Your task to perform on an android device: manage bookmarks in the chrome app Image 0: 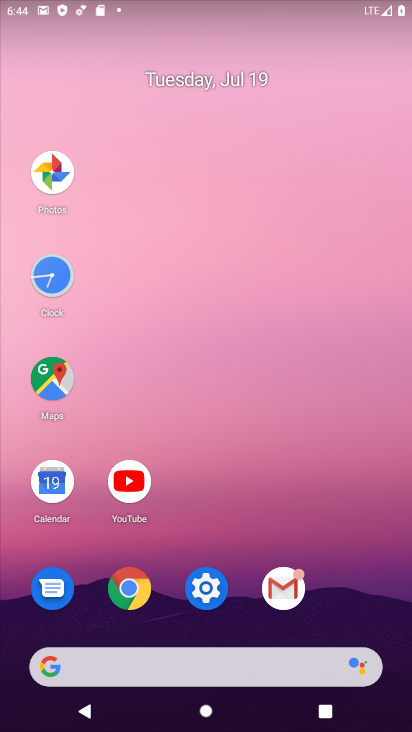
Step 0: click (135, 584)
Your task to perform on an android device: manage bookmarks in the chrome app Image 1: 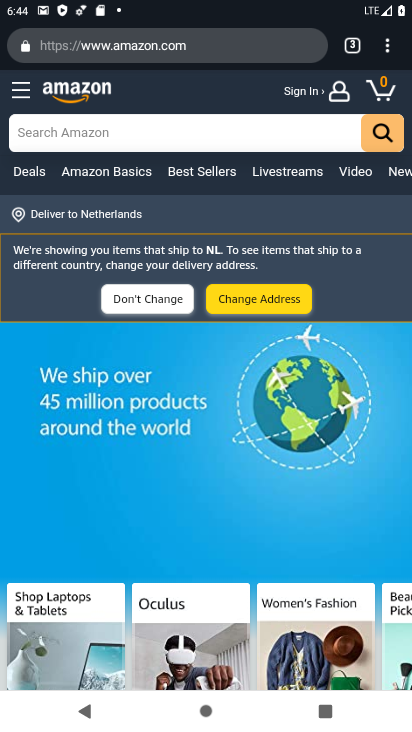
Step 1: click (393, 36)
Your task to perform on an android device: manage bookmarks in the chrome app Image 2: 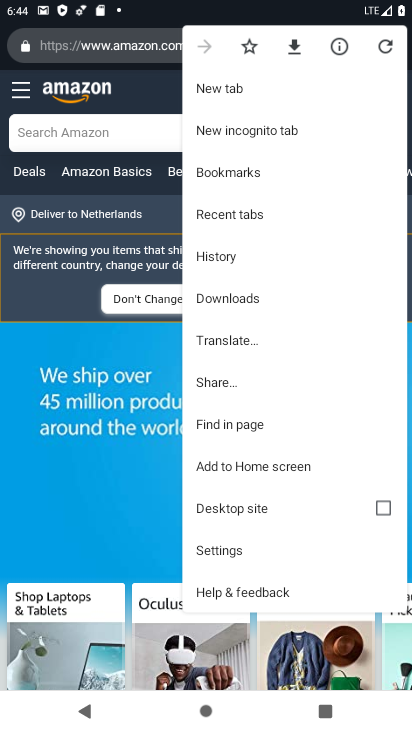
Step 2: click (224, 171)
Your task to perform on an android device: manage bookmarks in the chrome app Image 3: 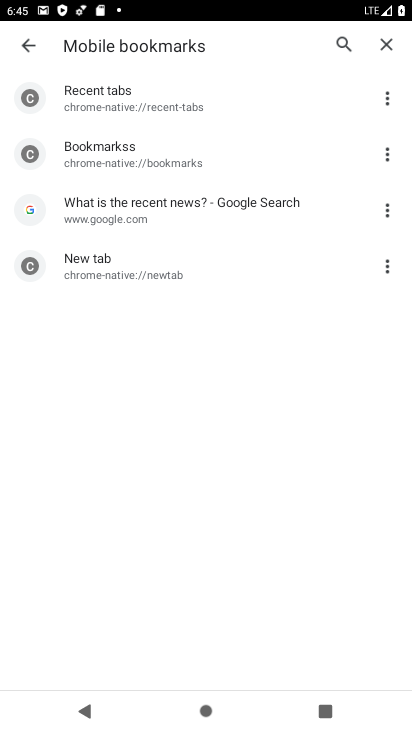
Step 3: click (390, 93)
Your task to perform on an android device: manage bookmarks in the chrome app Image 4: 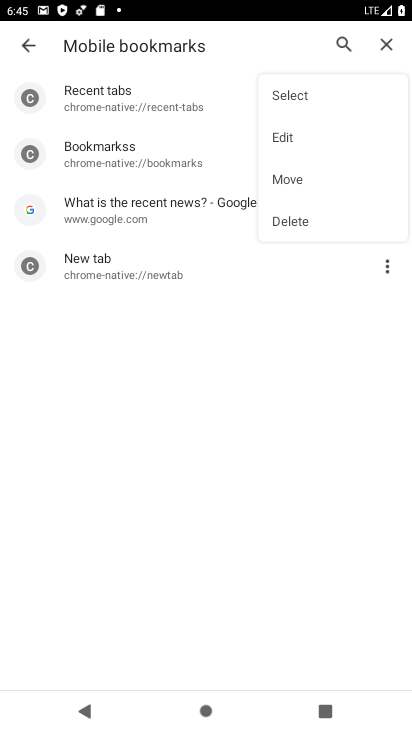
Step 4: click (281, 136)
Your task to perform on an android device: manage bookmarks in the chrome app Image 5: 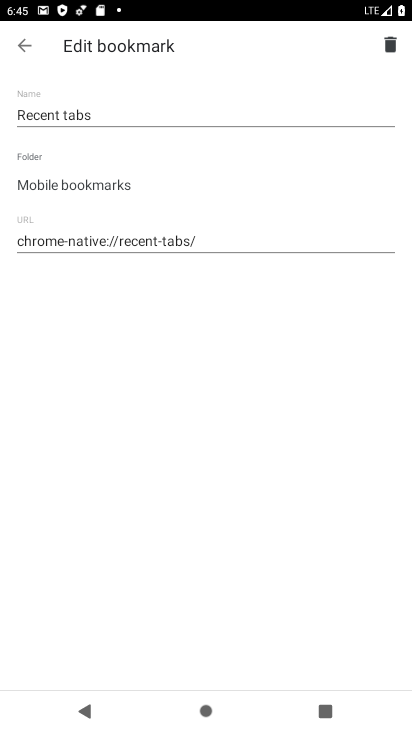
Step 5: task complete